Your task to perform on an android device: Open Google Maps and go to "Timeline" Image 0: 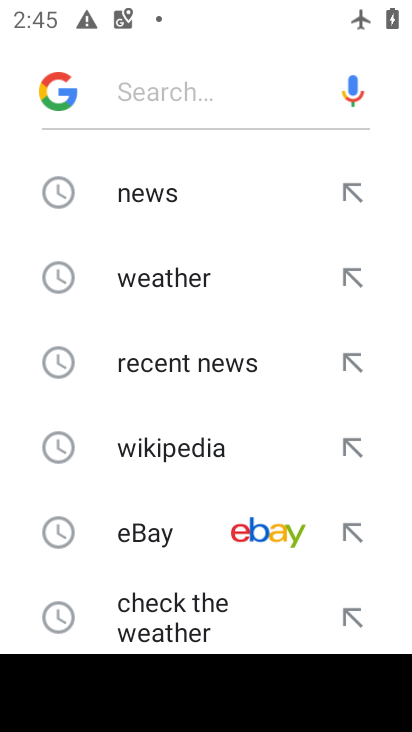
Step 0: press home button
Your task to perform on an android device: Open Google Maps and go to "Timeline" Image 1: 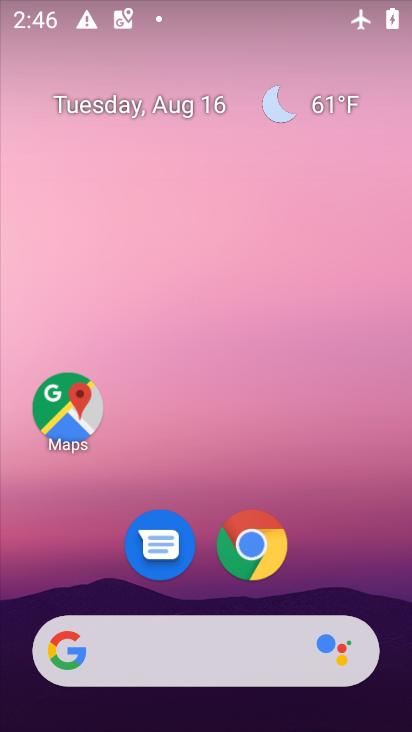
Step 1: click (42, 418)
Your task to perform on an android device: Open Google Maps and go to "Timeline" Image 2: 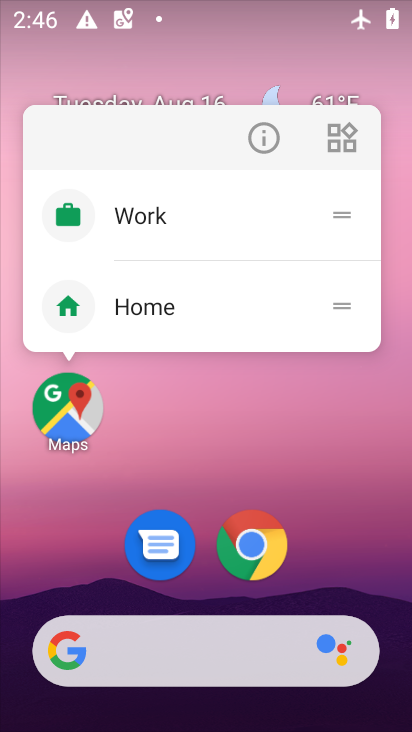
Step 2: click (40, 415)
Your task to perform on an android device: Open Google Maps and go to "Timeline" Image 3: 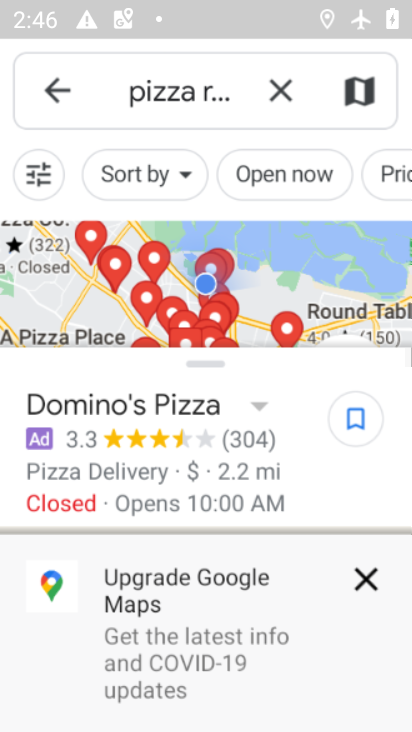
Step 3: click (59, 88)
Your task to perform on an android device: Open Google Maps and go to "Timeline" Image 4: 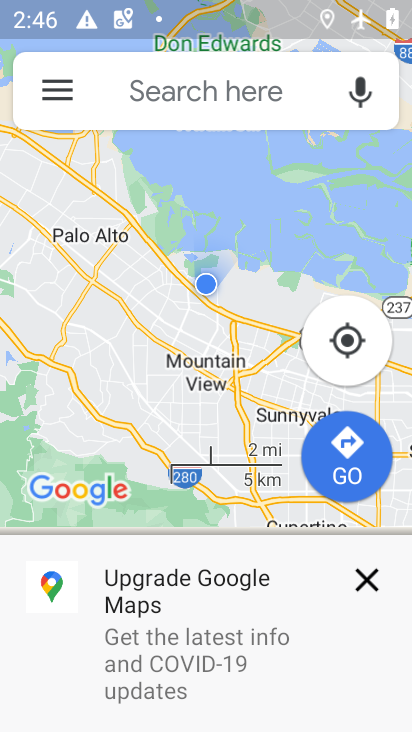
Step 4: click (54, 89)
Your task to perform on an android device: Open Google Maps and go to "Timeline" Image 5: 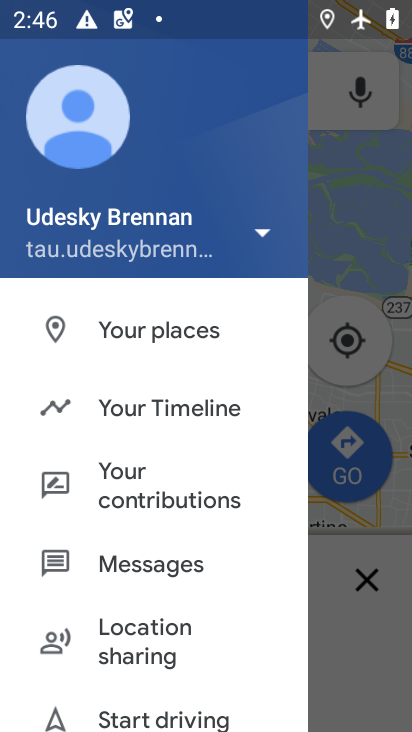
Step 5: click (158, 413)
Your task to perform on an android device: Open Google Maps and go to "Timeline" Image 6: 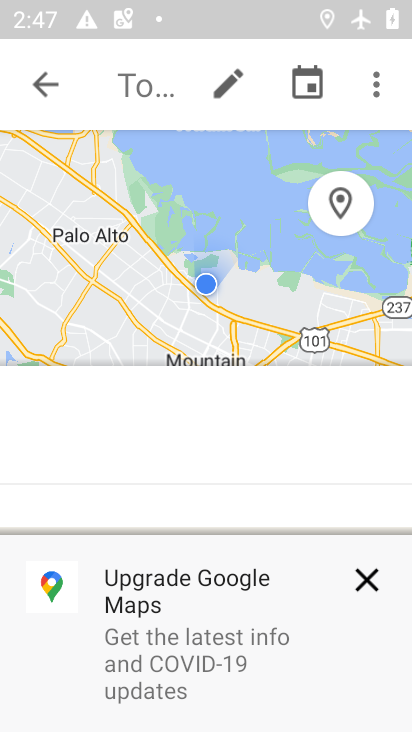
Step 6: task complete